Your task to perform on an android device: open app "Instagram" (install if not already installed) and enter user name: "nobler@yahoo.com" and password: "foraging" Image 0: 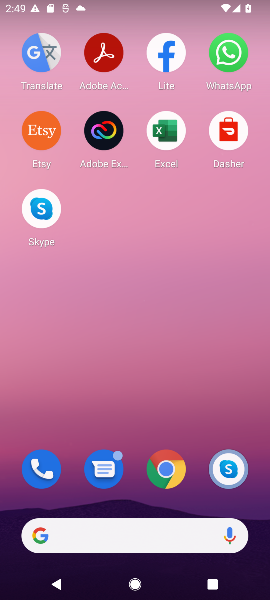
Step 0: click (127, 411)
Your task to perform on an android device: open app "Instagram" (install if not already installed) and enter user name: "nobler@yahoo.com" and password: "foraging" Image 1: 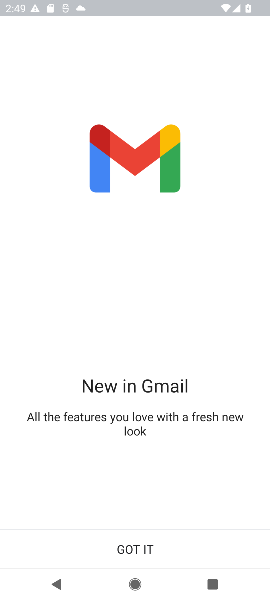
Step 1: press home button
Your task to perform on an android device: open app "Instagram" (install if not already installed) and enter user name: "nobler@yahoo.com" and password: "foraging" Image 2: 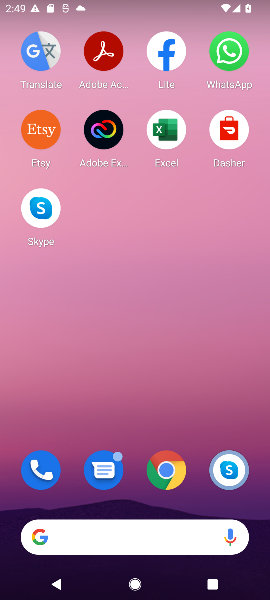
Step 2: drag from (119, 486) to (117, 89)
Your task to perform on an android device: open app "Instagram" (install if not already installed) and enter user name: "nobler@yahoo.com" and password: "foraging" Image 3: 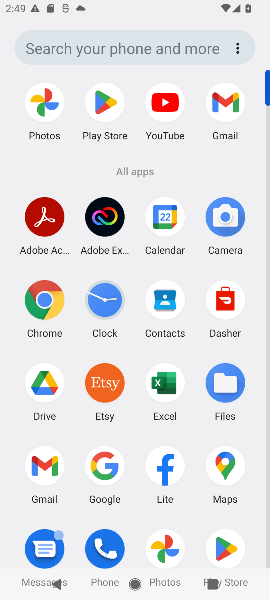
Step 3: click (223, 545)
Your task to perform on an android device: open app "Instagram" (install if not already installed) and enter user name: "nobler@yahoo.com" and password: "foraging" Image 4: 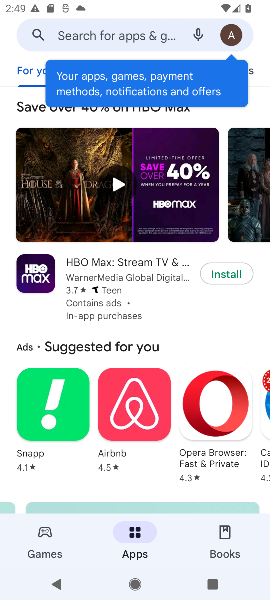
Step 4: click (86, 28)
Your task to perform on an android device: open app "Instagram" (install if not already installed) and enter user name: "nobler@yahoo.com" and password: "foraging" Image 5: 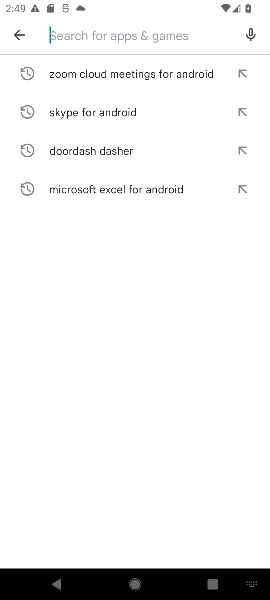
Step 5: type "Instagram "
Your task to perform on an android device: open app "Instagram" (install if not already installed) and enter user name: "nobler@yahoo.com" and password: "foraging" Image 6: 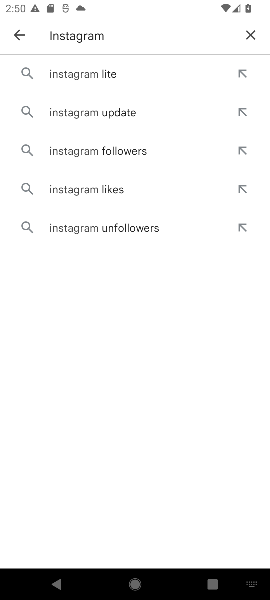
Step 6: click (83, 66)
Your task to perform on an android device: open app "Instagram" (install if not already installed) and enter user name: "nobler@yahoo.com" and password: "foraging" Image 7: 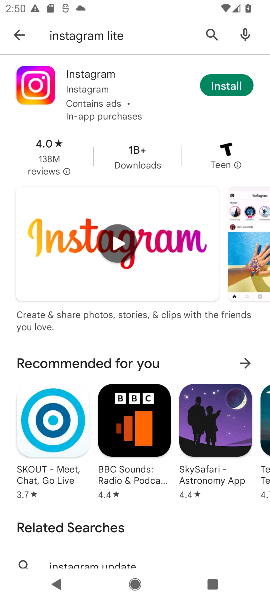
Step 7: click (219, 83)
Your task to perform on an android device: open app "Instagram" (install if not already installed) and enter user name: "nobler@yahoo.com" and password: "foraging" Image 8: 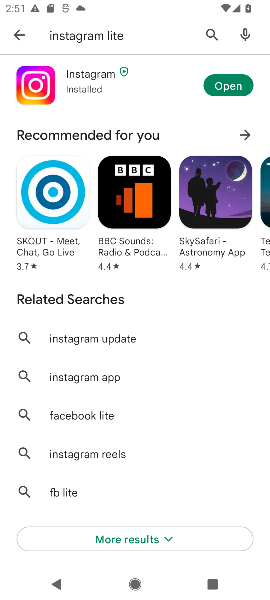
Step 8: click (222, 76)
Your task to perform on an android device: open app "Instagram" (install if not already installed) and enter user name: "nobler@yahoo.com" and password: "foraging" Image 9: 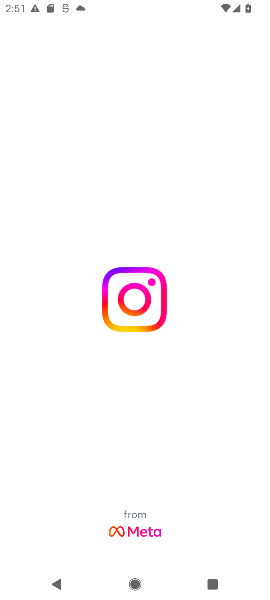
Step 9: task complete